Your task to perform on an android device: toggle show notifications on the lock screen Image 0: 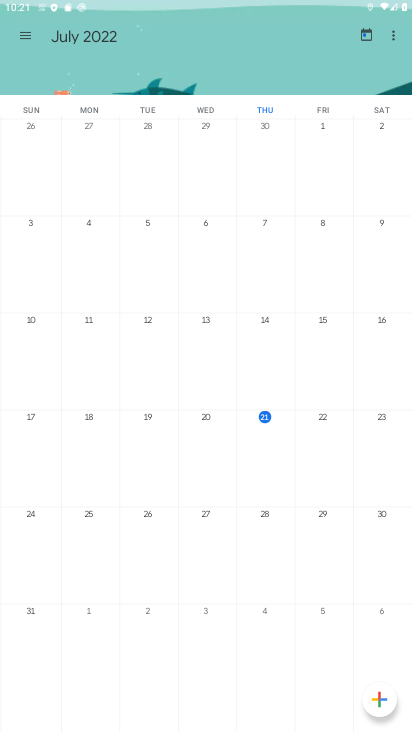
Step 0: press home button
Your task to perform on an android device: toggle show notifications on the lock screen Image 1: 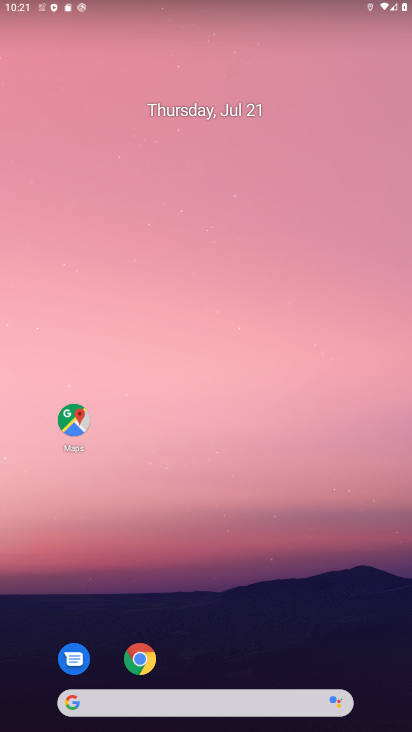
Step 1: drag from (197, 684) to (158, 215)
Your task to perform on an android device: toggle show notifications on the lock screen Image 2: 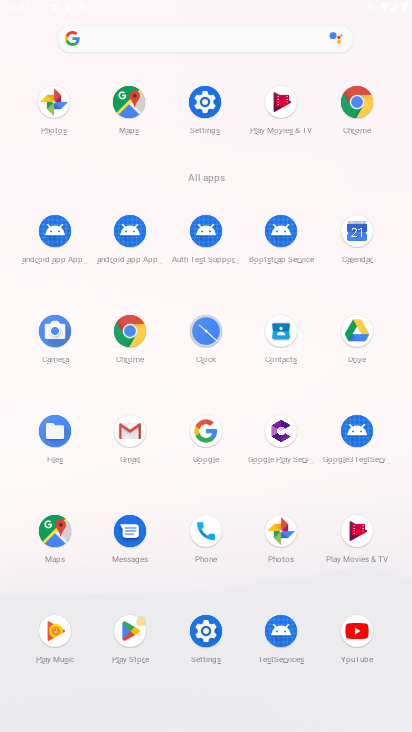
Step 2: click (193, 110)
Your task to perform on an android device: toggle show notifications on the lock screen Image 3: 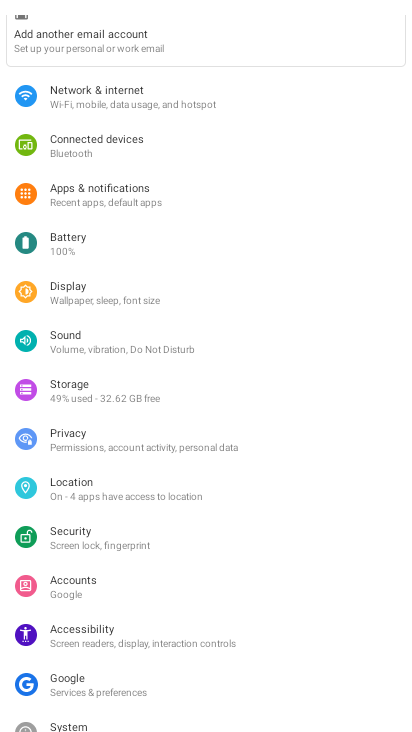
Step 3: click (117, 193)
Your task to perform on an android device: toggle show notifications on the lock screen Image 4: 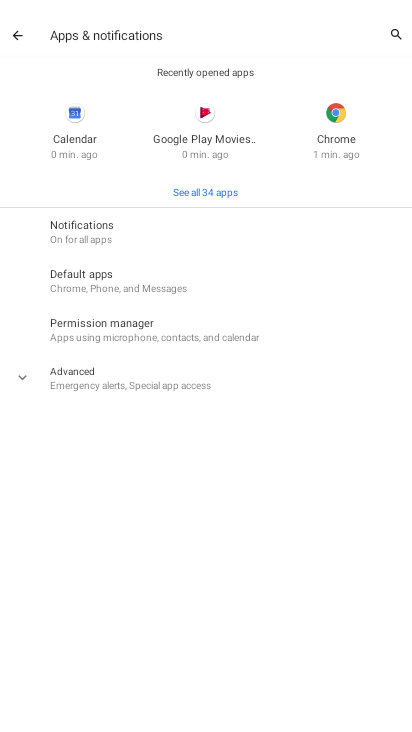
Step 4: click (92, 225)
Your task to perform on an android device: toggle show notifications on the lock screen Image 5: 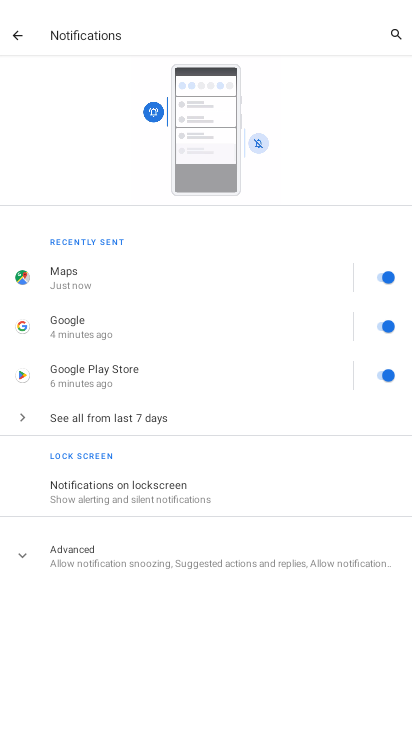
Step 5: click (112, 478)
Your task to perform on an android device: toggle show notifications on the lock screen Image 6: 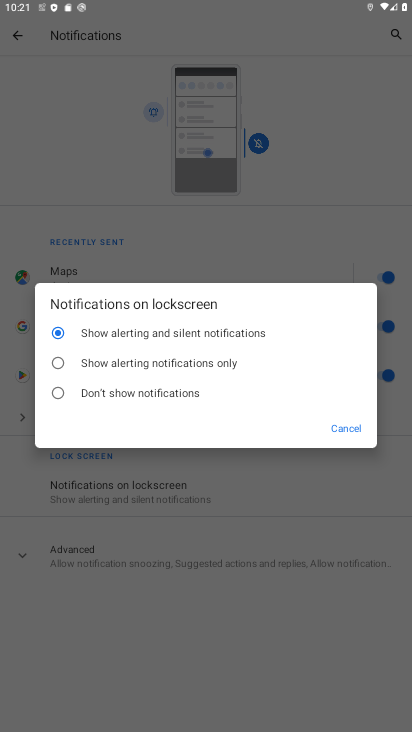
Step 6: click (107, 365)
Your task to perform on an android device: toggle show notifications on the lock screen Image 7: 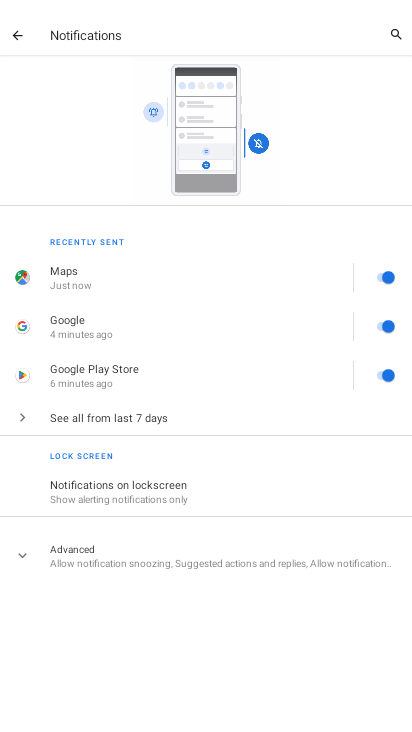
Step 7: task complete